Your task to perform on an android device: set default search engine in the chrome app Image 0: 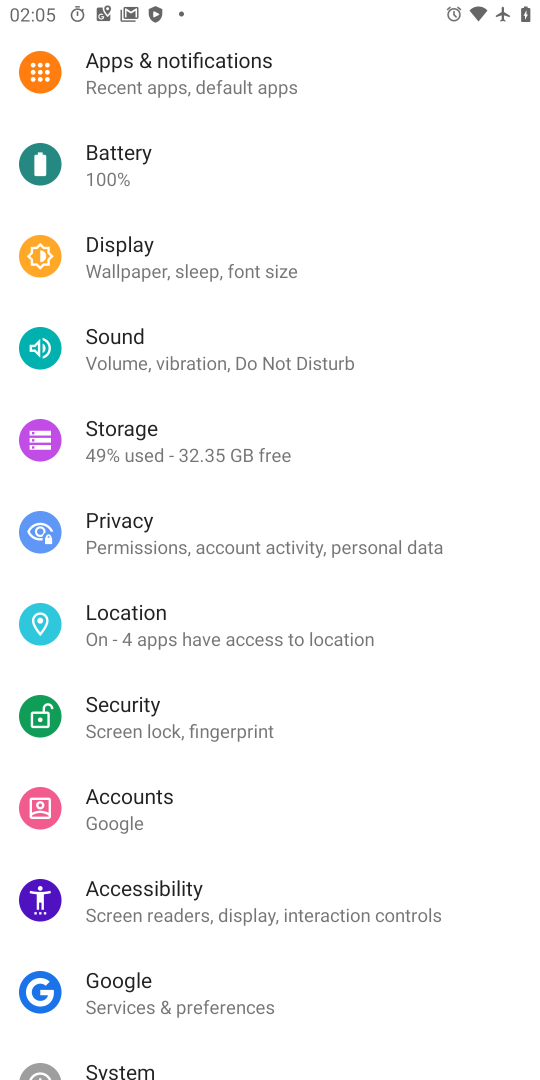
Step 0: press home button
Your task to perform on an android device: set default search engine in the chrome app Image 1: 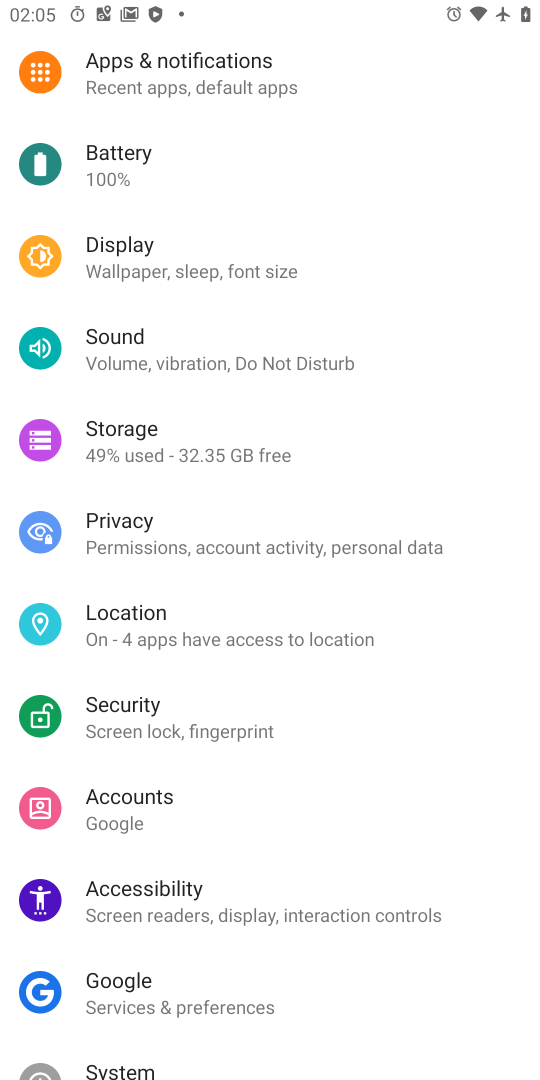
Step 1: press home button
Your task to perform on an android device: set default search engine in the chrome app Image 2: 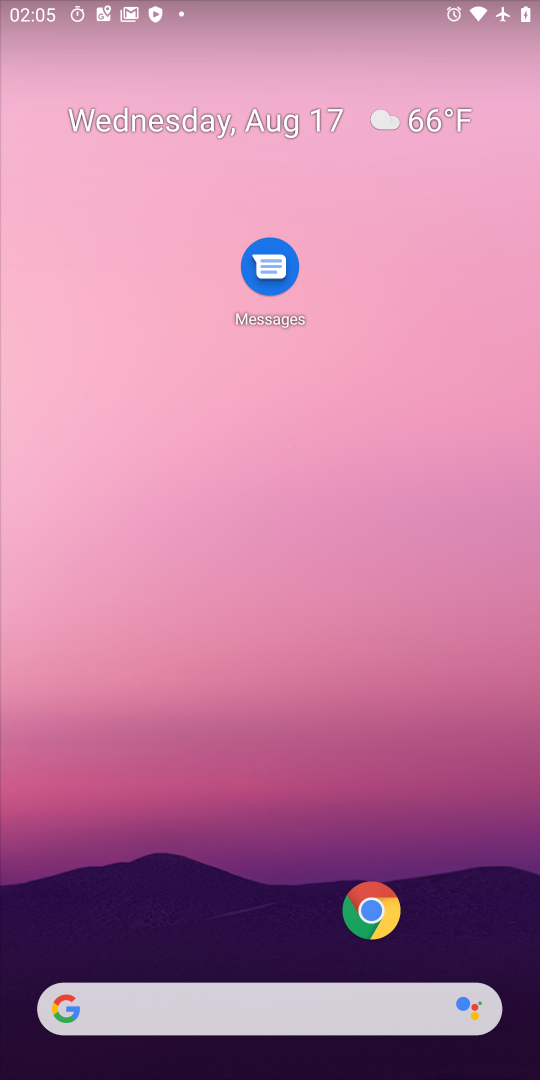
Step 2: drag from (212, 851) to (301, 126)
Your task to perform on an android device: set default search engine in the chrome app Image 3: 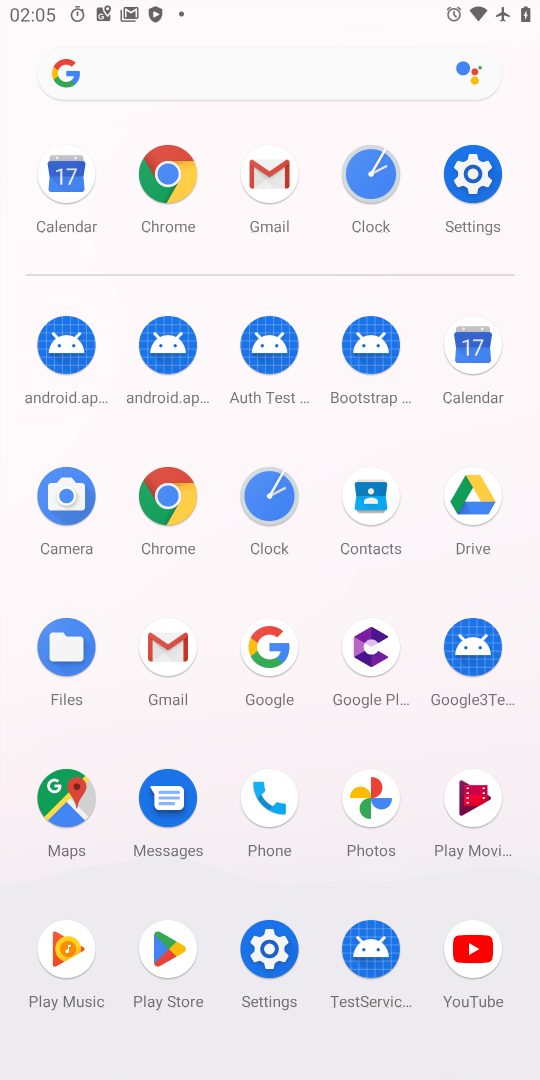
Step 3: click (156, 499)
Your task to perform on an android device: set default search engine in the chrome app Image 4: 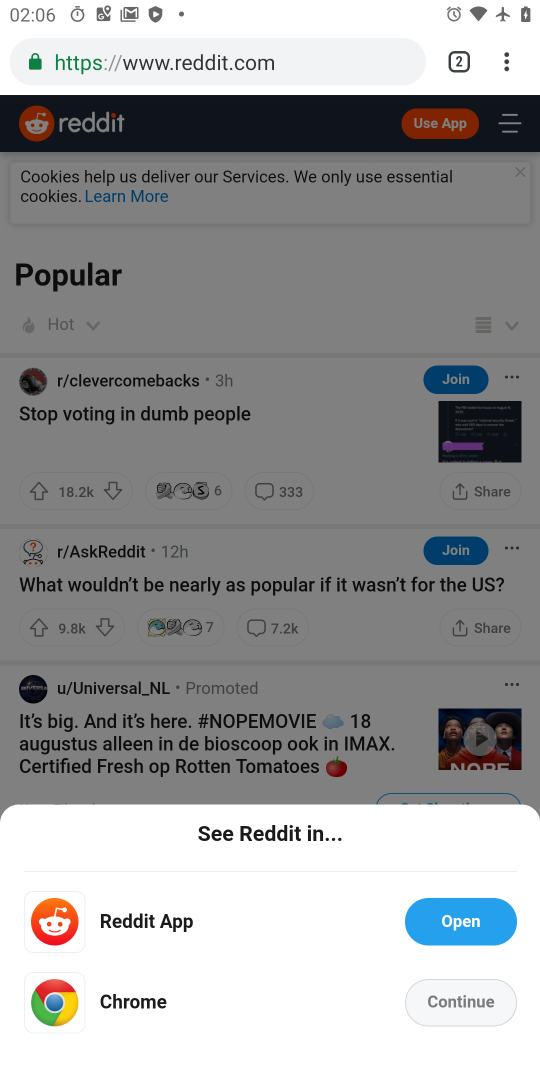
Step 4: drag from (508, 57) to (296, 823)
Your task to perform on an android device: set default search engine in the chrome app Image 5: 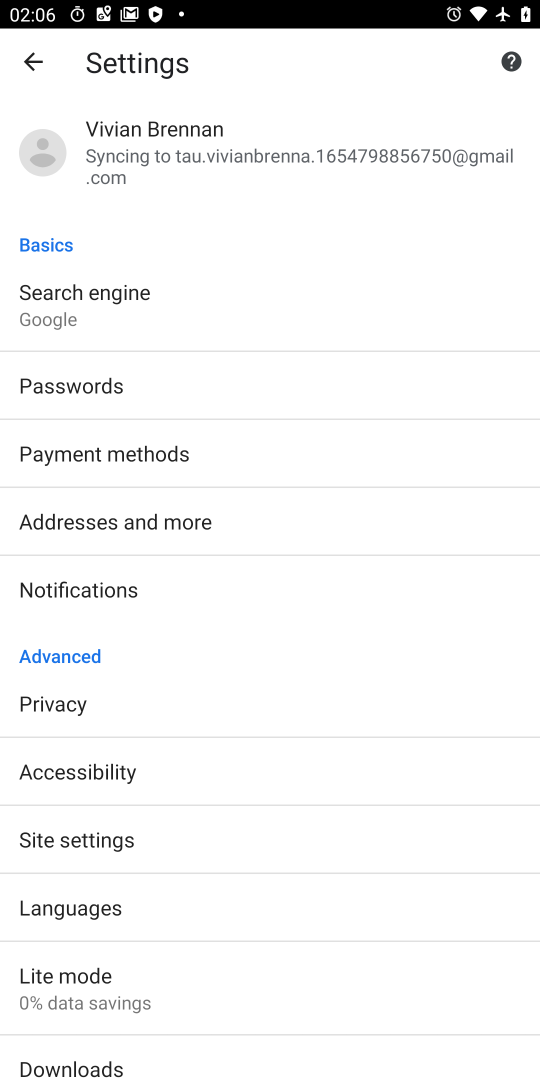
Step 5: drag from (176, 967) to (232, 314)
Your task to perform on an android device: set default search engine in the chrome app Image 6: 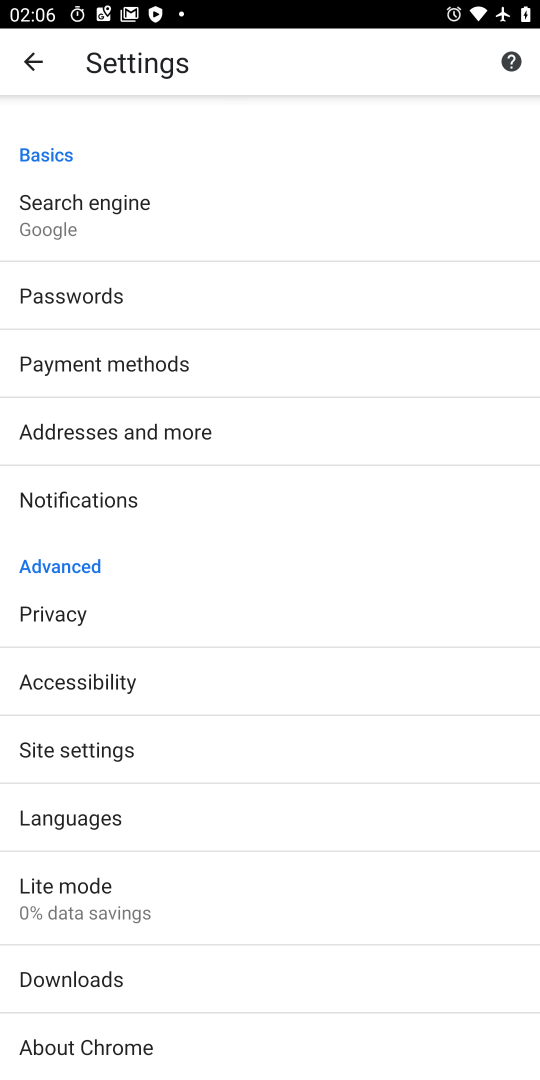
Step 6: click (146, 214)
Your task to perform on an android device: set default search engine in the chrome app Image 7: 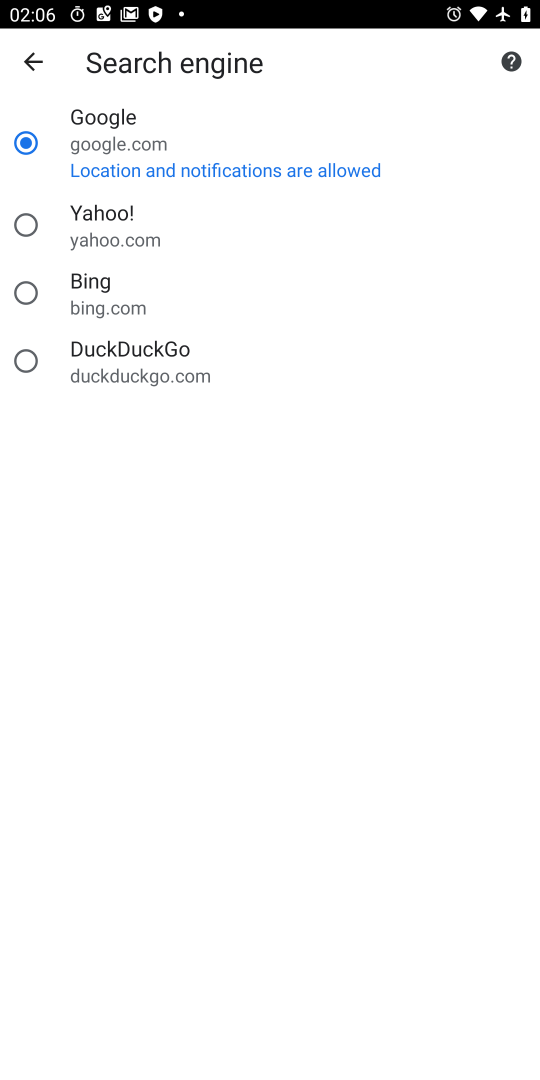
Step 7: task complete